Your task to perform on an android device: turn on the 12-hour format for clock Image 0: 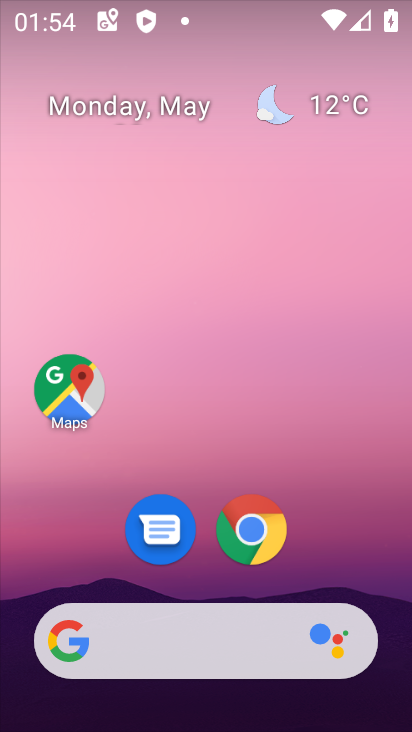
Step 0: drag from (390, 632) to (328, 65)
Your task to perform on an android device: turn on the 12-hour format for clock Image 1: 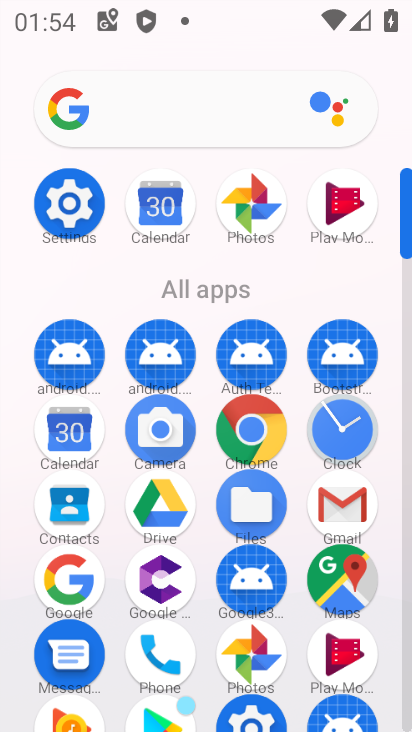
Step 1: click (406, 703)
Your task to perform on an android device: turn on the 12-hour format for clock Image 2: 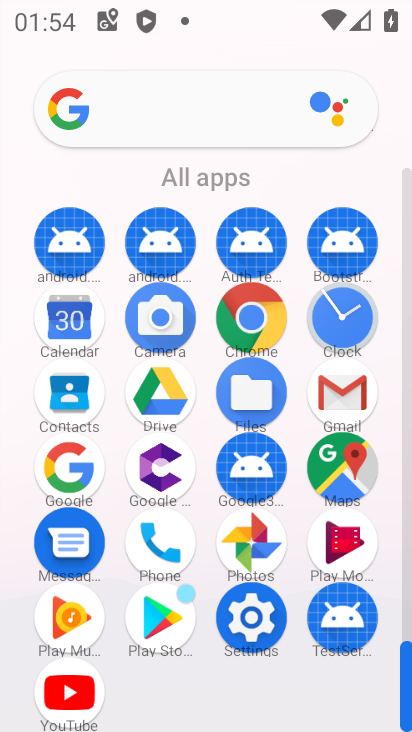
Step 2: click (344, 315)
Your task to perform on an android device: turn on the 12-hour format for clock Image 3: 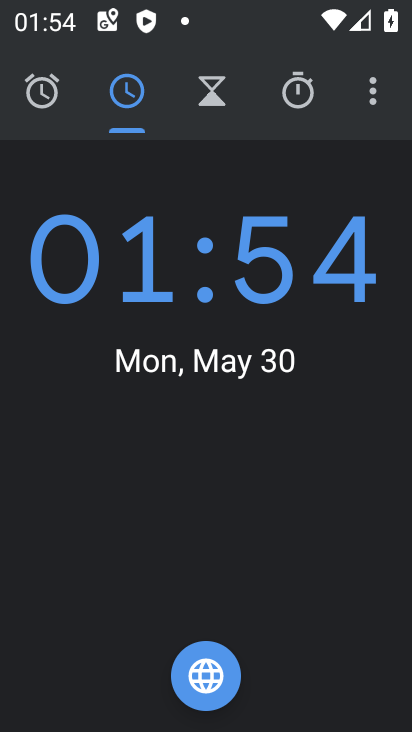
Step 3: click (368, 103)
Your task to perform on an android device: turn on the 12-hour format for clock Image 4: 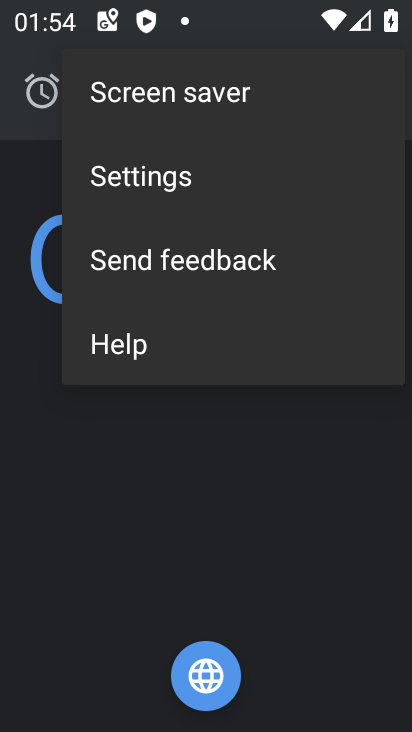
Step 4: click (160, 172)
Your task to perform on an android device: turn on the 12-hour format for clock Image 5: 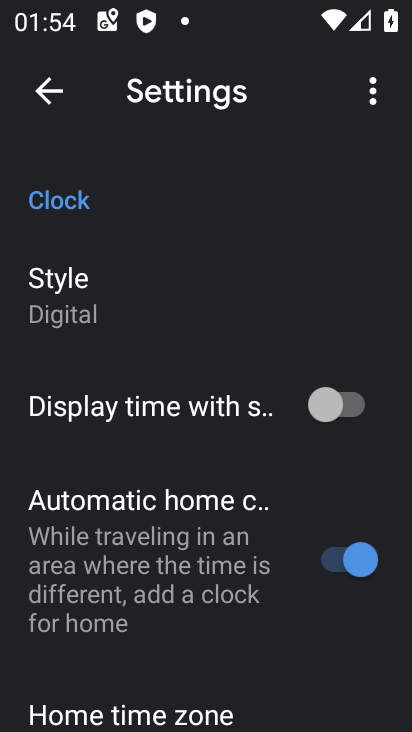
Step 5: drag from (242, 663) to (265, 213)
Your task to perform on an android device: turn on the 12-hour format for clock Image 6: 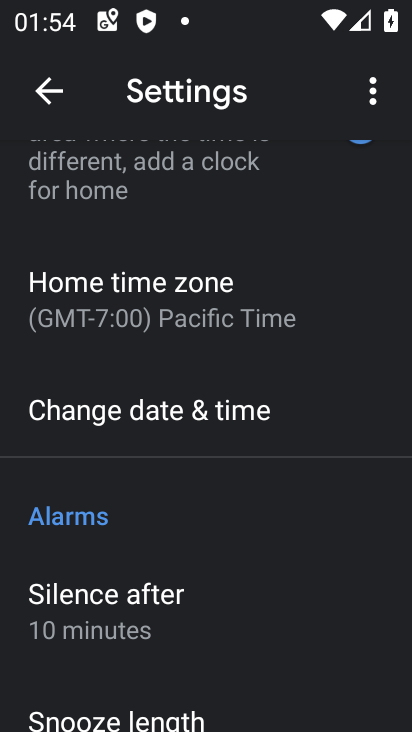
Step 6: click (221, 418)
Your task to perform on an android device: turn on the 12-hour format for clock Image 7: 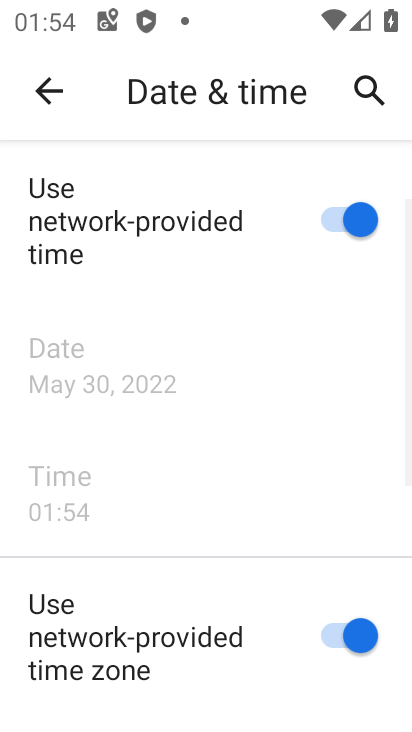
Step 7: drag from (271, 627) to (258, 272)
Your task to perform on an android device: turn on the 12-hour format for clock Image 8: 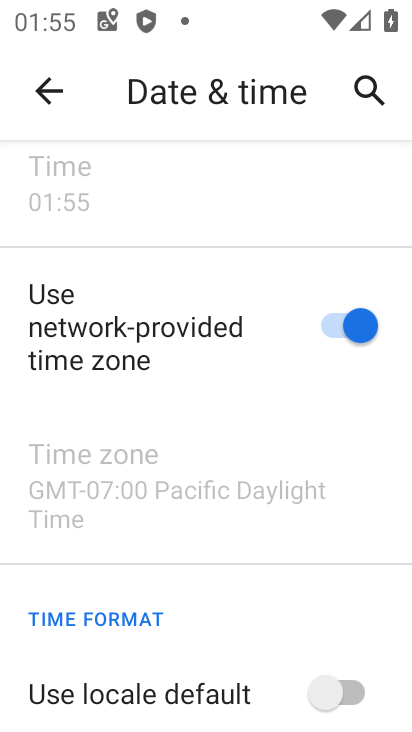
Step 8: drag from (279, 646) to (269, 101)
Your task to perform on an android device: turn on the 12-hour format for clock Image 9: 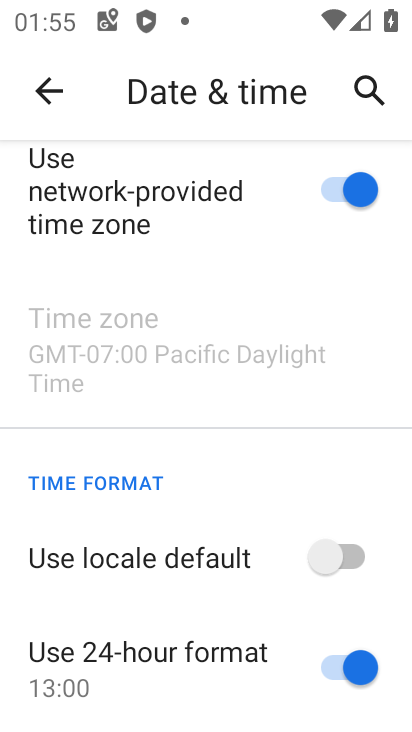
Step 9: click (351, 555)
Your task to perform on an android device: turn on the 12-hour format for clock Image 10: 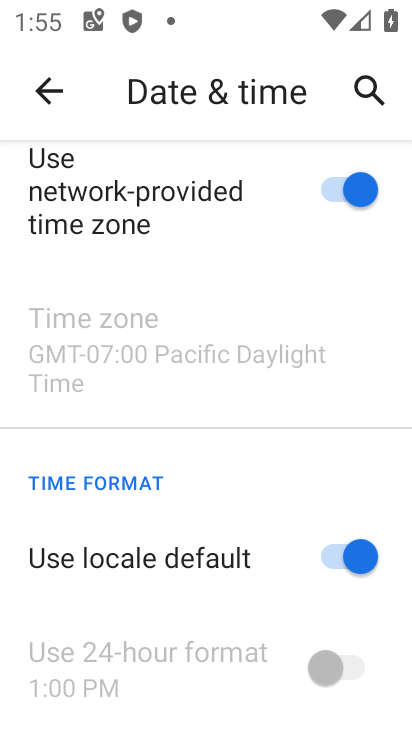
Step 10: task complete